Your task to perform on an android device: toggle data saver in the chrome app Image 0: 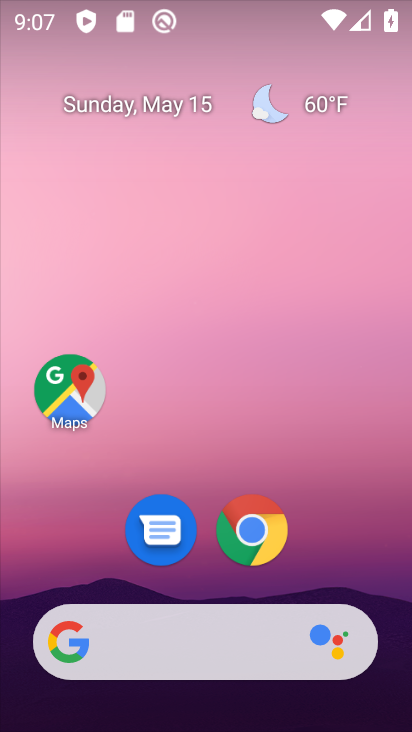
Step 0: drag from (355, 554) to (350, 118)
Your task to perform on an android device: toggle data saver in the chrome app Image 1: 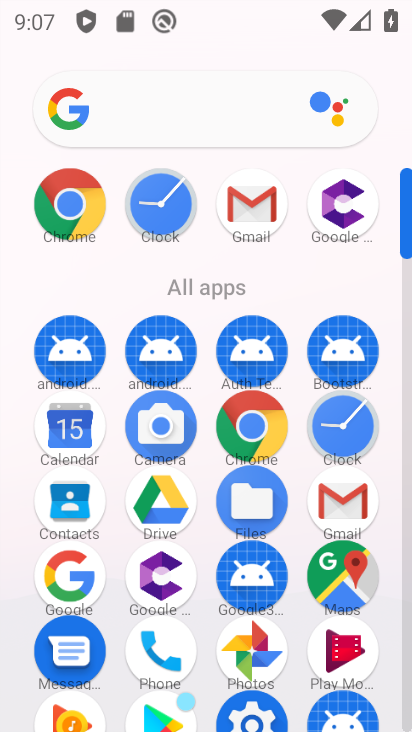
Step 1: click (270, 431)
Your task to perform on an android device: toggle data saver in the chrome app Image 2: 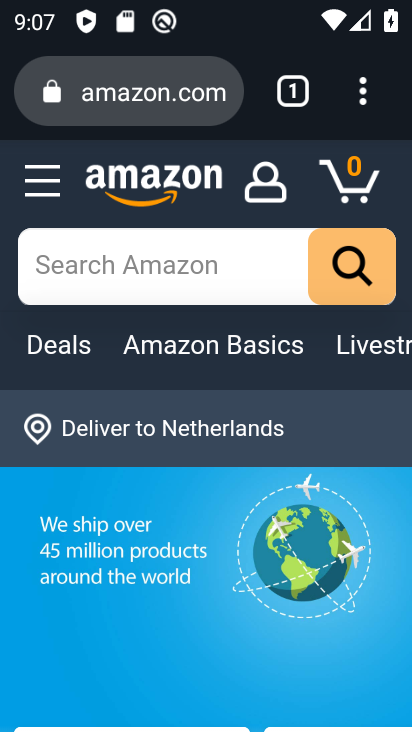
Step 2: click (366, 94)
Your task to perform on an android device: toggle data saver in the chrome app Image 3: 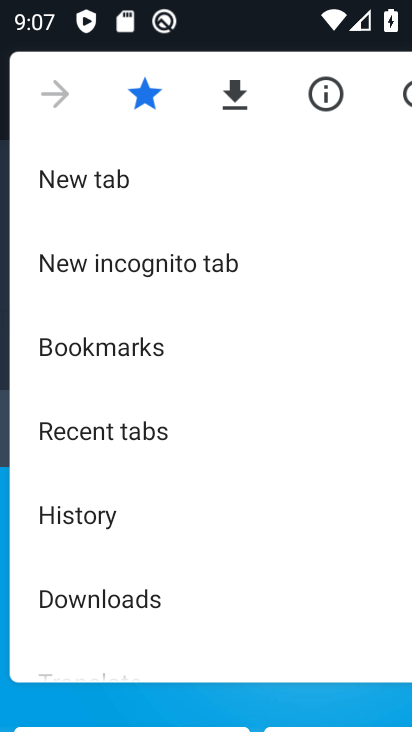
Step 3: drag from (310, 631) to (327, 486)
Your task to perform on an android device: toggle data saver in the chrome app Image 4: 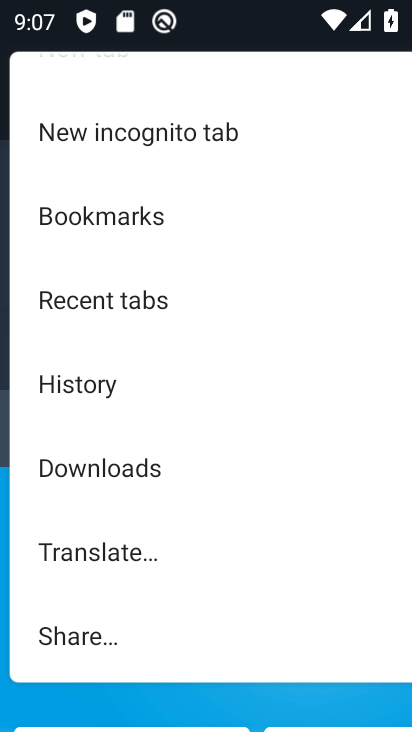
Step 4: drag from (311, 634) to (328, 550)
Your task to perform on an android device: toggle data saver in the chrome app Image 5: 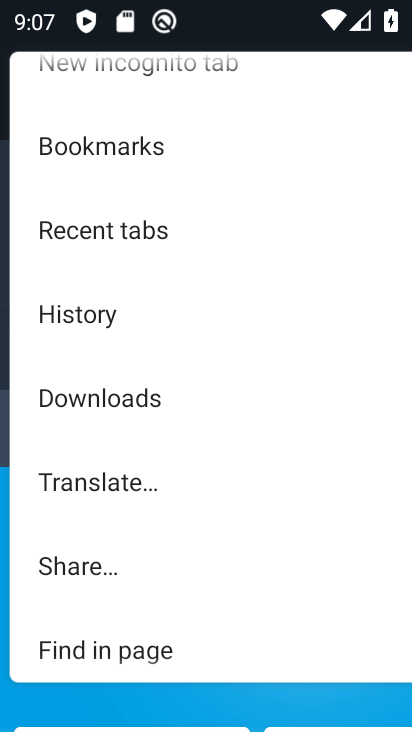
Step 5: drag from (300, 610) to (306, 456)
Your task to perform on an android device: toggle data saver in the chrome app Image 6: 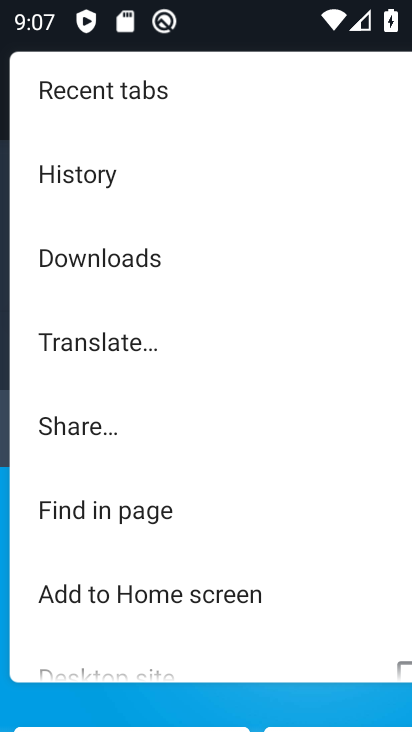
Step 6: drag from (321, 608) to (320, 434)
Your task to perform on an android device: toggle data saver in the chrome app Image 7: 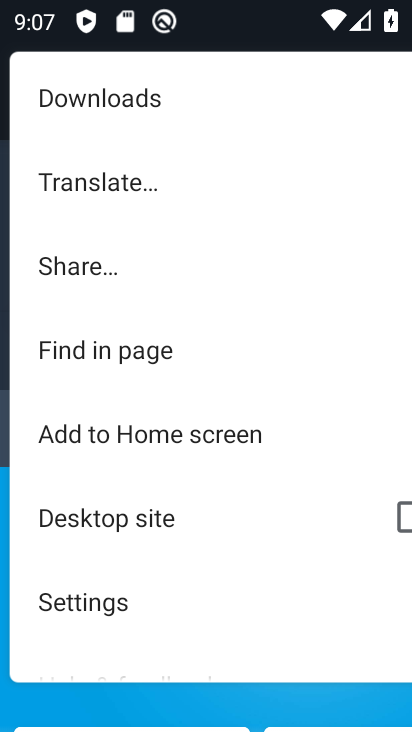
Step 7: drag from (296, 588) to (306, 475)
Your task to perform on an android device: toggle data saver in the chrome app Image 8: 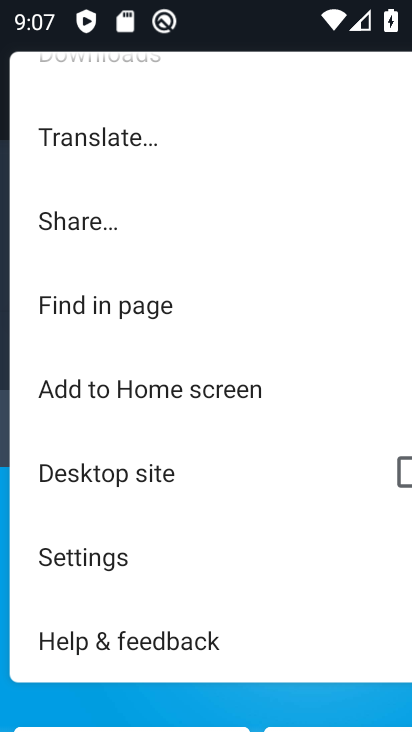
Step 8: click (128, 566)
Your task to perform on an android device: toggle data saver in the chrome app Image 9: 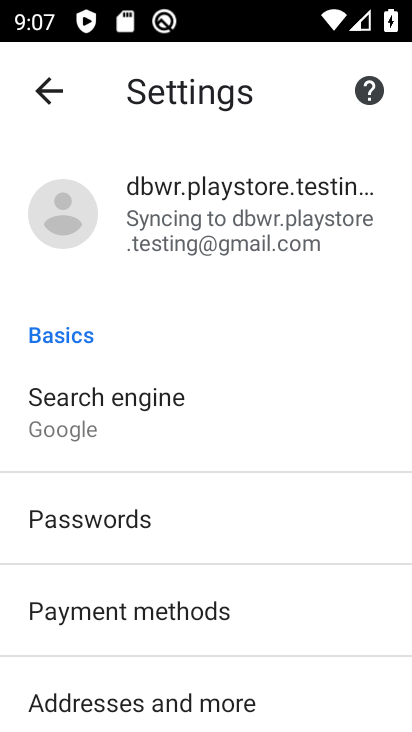
Step 9: drag from (349, 653) to (352, 538)
Your task to perform on an android device: toggle data saver in the chrome app Image 10: 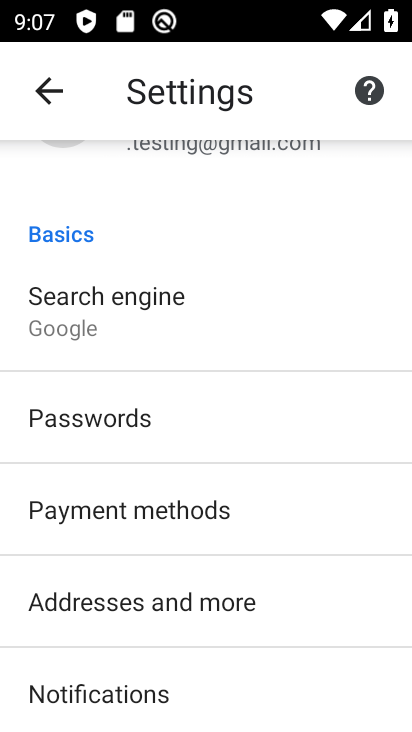
Step 10: drag from (342, 657) to (346, 543)
Your task to perform on an android device: toggle data saver in the chrome app Image 11: 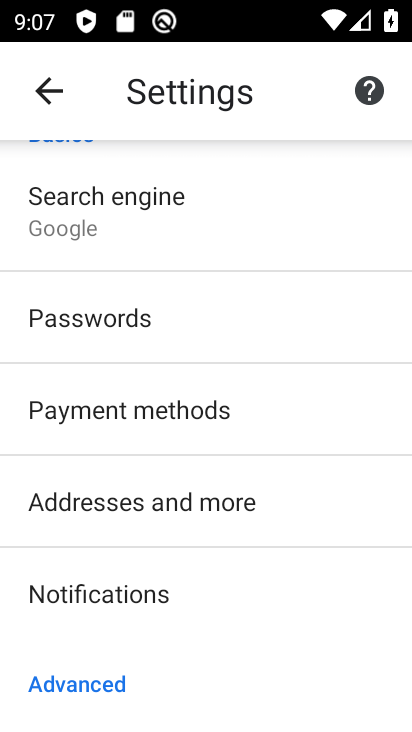
Step 11: drag from (335, 649) to (340, 554)
Your task to perform on an android device: toggle data saver in the chrome app Image 12: 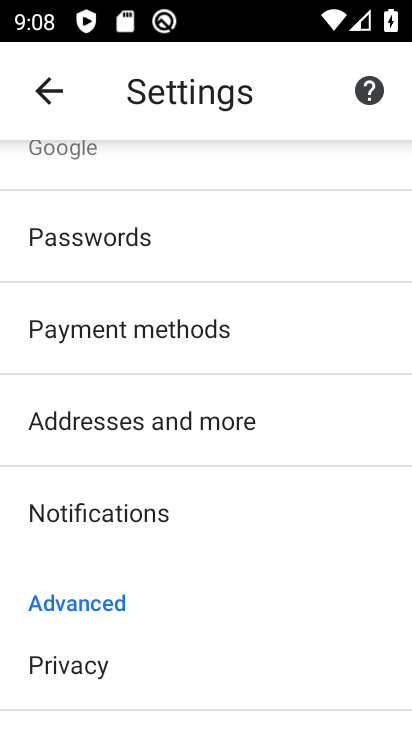
Step 12: drag from (331, 680) to (336, 564)
Your task to perform on an android device: toggle data saver in the chrome app Image 13: 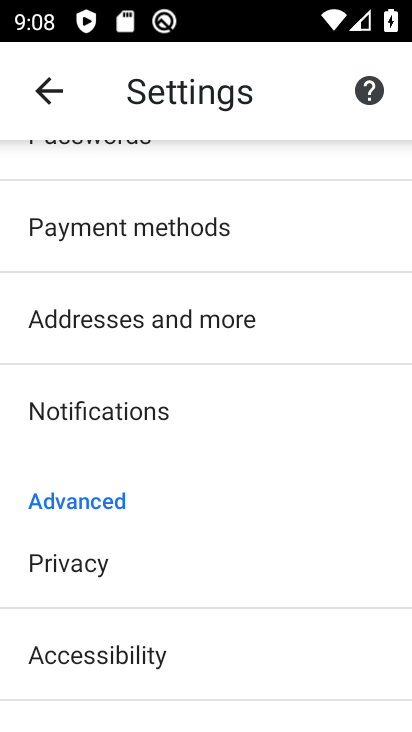
Step 13: drag from (319, 683) to (319, 577)
Your task to perform on an android device: toggle data saver in the chrome app Image 14: 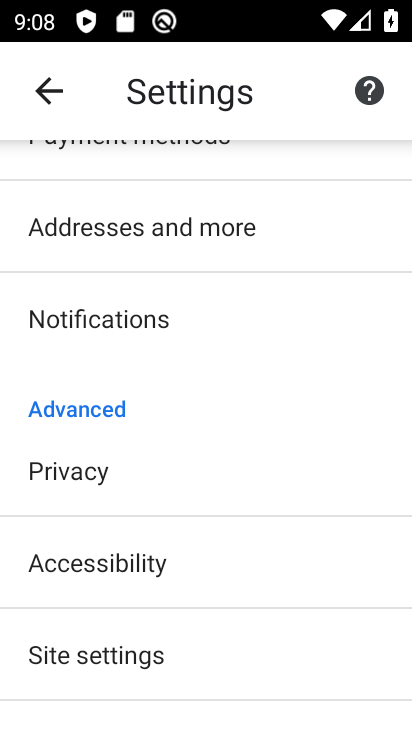
Step 14: drag from (315, 669) to (324, 581)
Your task to perform on an android device: toggle data saver in the chrome app Image 15: 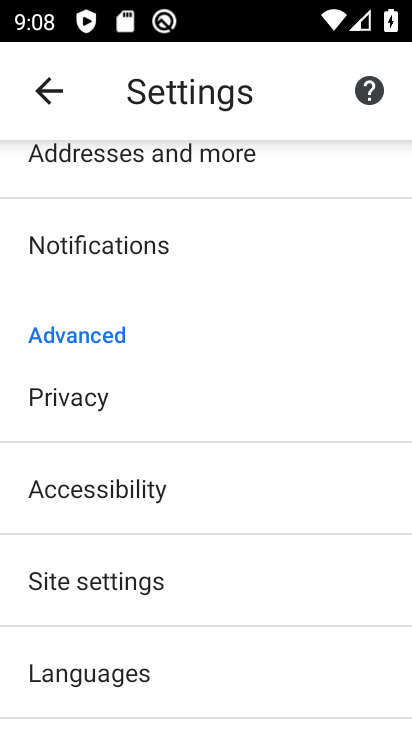
Step 15: drag from (315, 662) to (316, 566)
Your task to perform on an android device: toggle data saver in the chrome app Image 16: 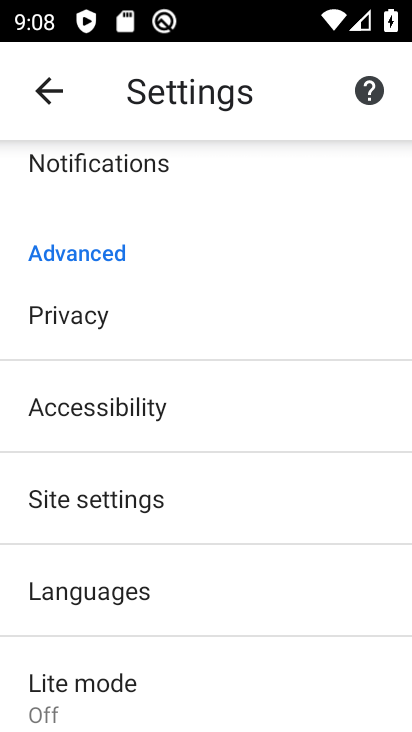
Step 16: drag from (300, 687) to (306, 564)
Your task to perform on an android device: toggle data saver in the chrome app Image 17: 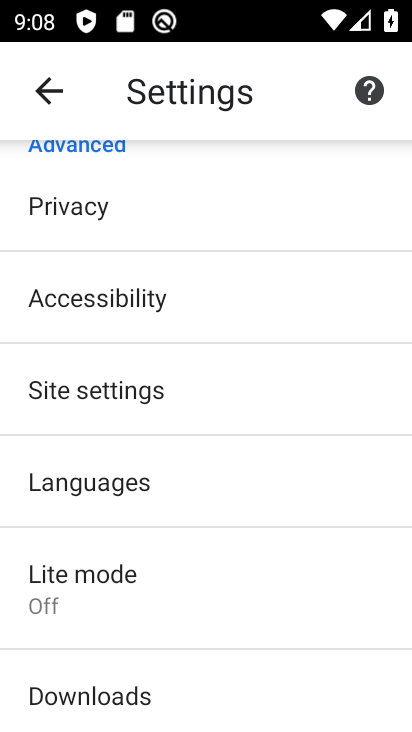
Step 17: drag from (298, 667) to (303, 483)
Your task to perform on an android device: toggle data saver in the chrome app Image 18: 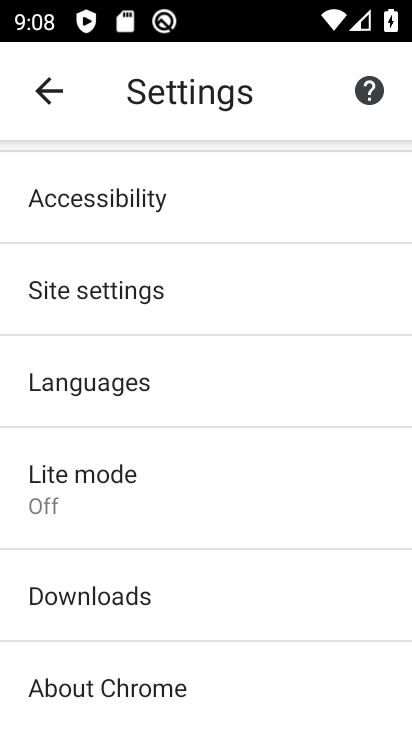
Step 18: click (124, 499)
Your task to perform on an android device: toggle data saver in the chrome app Image 19: 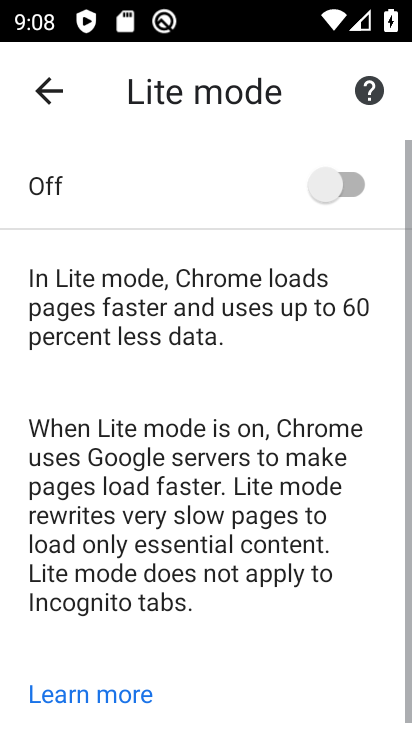
Step 19: click (341, 171)
Your task to perform on an android device: toggle data saver in the chrome app Image 20: 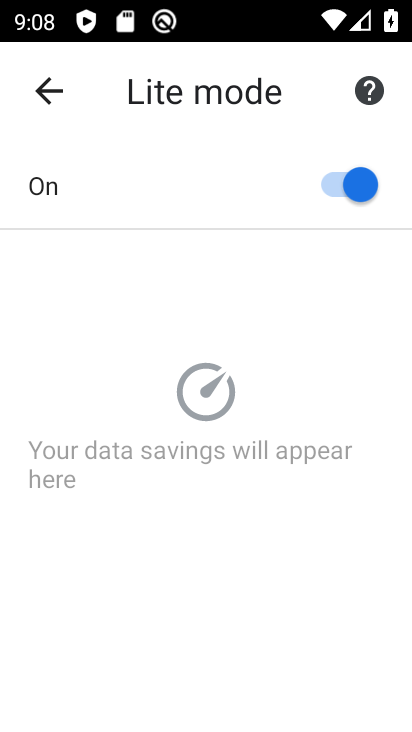
Step 20: task complete